Your task to perform on an android device: Is it going to rain today? Image 0: 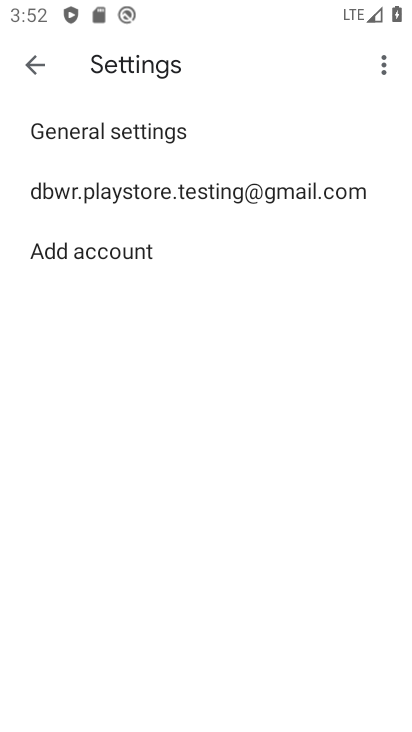
Step 0: press home button
Your task to perform on an android device: Is it going to rain today? Image 1: 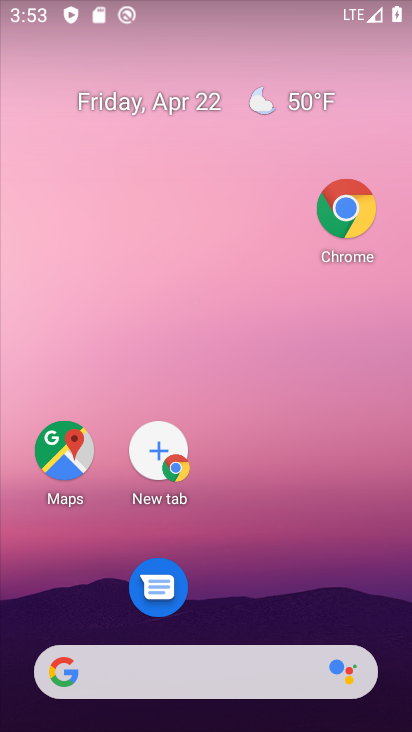
Step 1: click (300, 121)
Your task to perform on an android device: Is it going to rain today? Image 2: 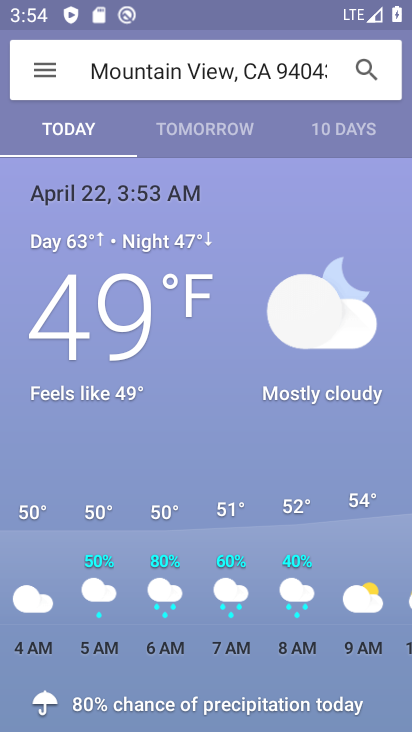
Step 2: task complete